Your task to perform on an android device: Open display settings Image 0: 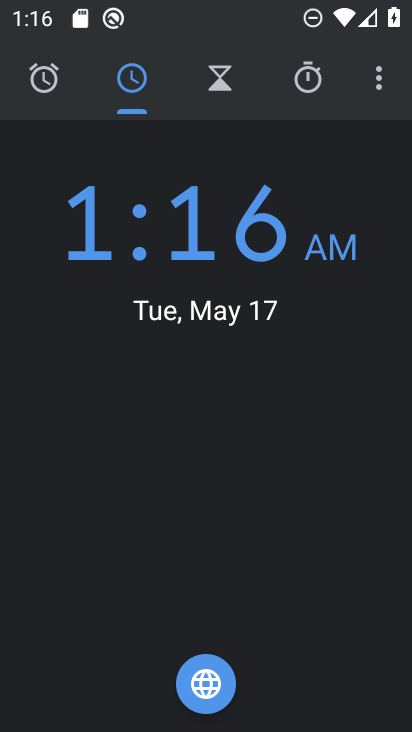
Step 0: press back button
Your task to perform on an android device: Open display settings Image 1: 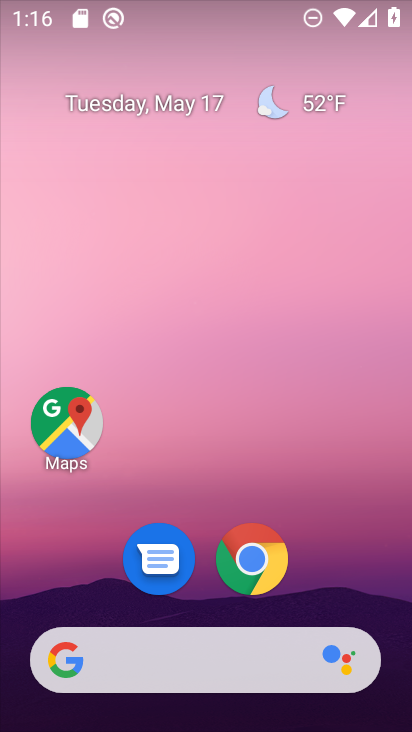
Step 1: drag from (321, 572) to (396, 116)
Your task to perform on an android device: Open display settings Image 2: 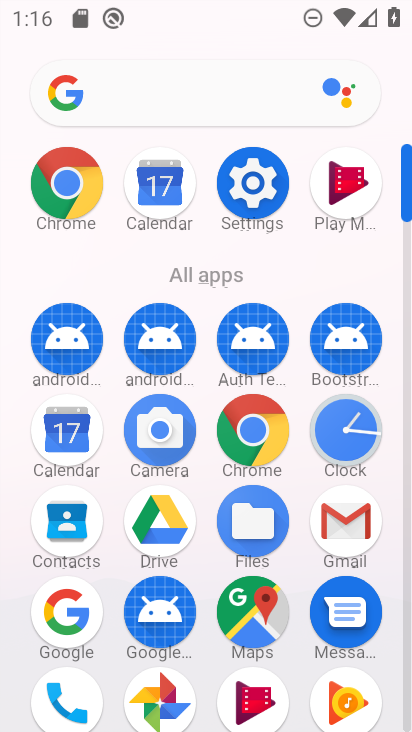
Step 2: click (251, 180)
Your task to perform on an android device: Open display settings Image 3: 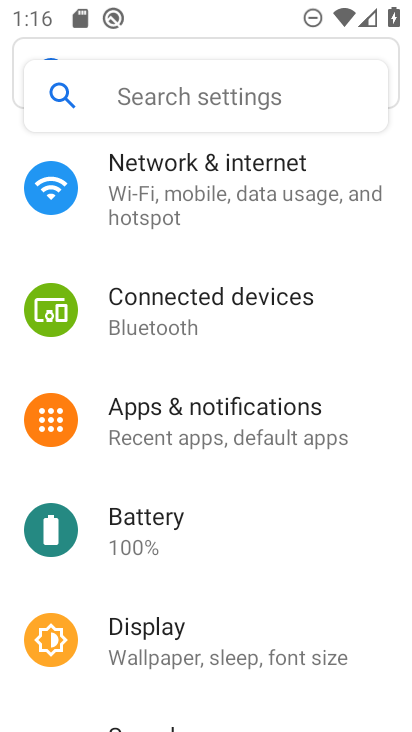
Step 3: click (143, 631)
Your task to perform on an android device: Open display settings Image 4: 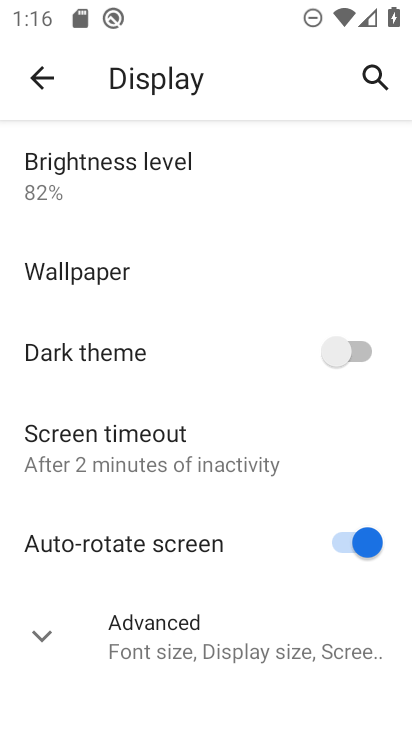
Step 4: task complete